Your task to perform on an android device: turn off airplane mode Image 0: 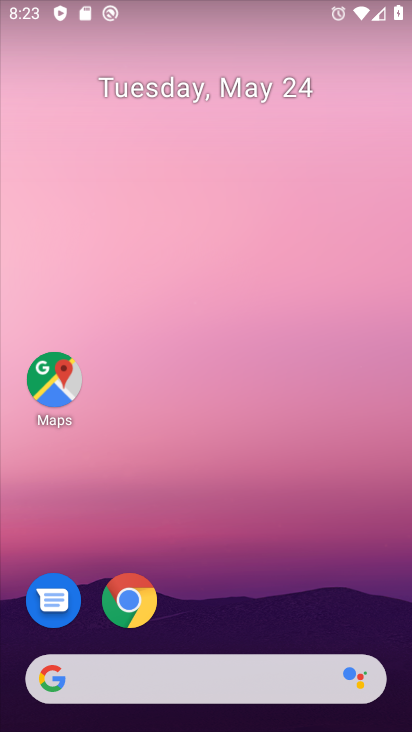
Step 0: drag from (198, 722) to (185, 2)
Your task to perform on an android device: turn off airplane mode Image 1: 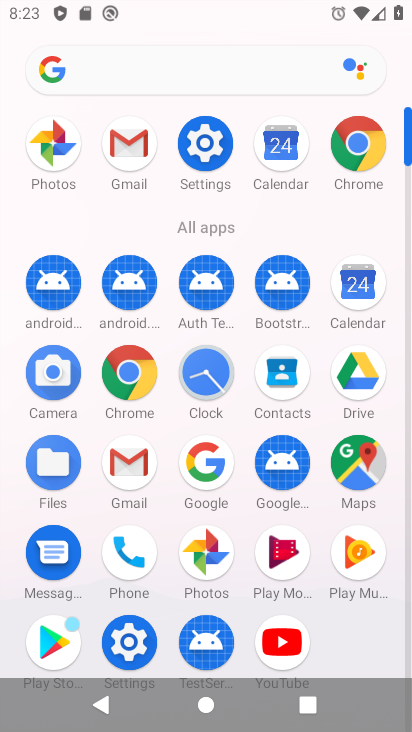
Step 1: click (206, 147)
Your task to perform on an android device: turn off airplane mode Image 2: 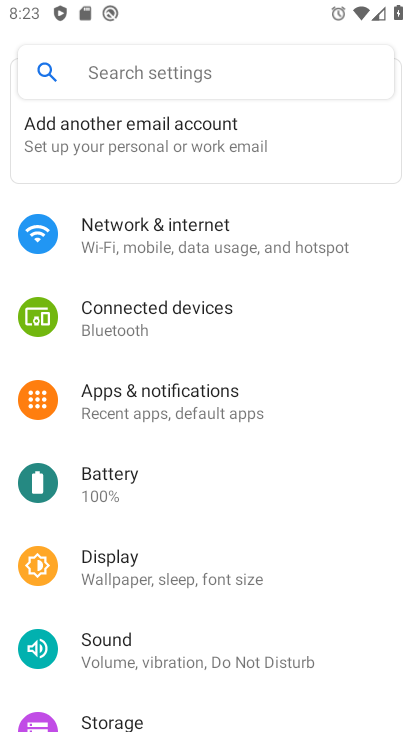
Step 2: click (175, 232)
Your task to perform on an android device: turn off airplane mode Image 3: 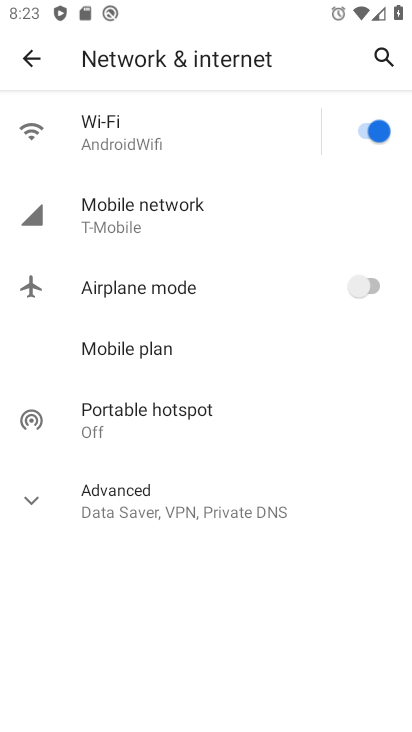
Step 3: task complete